Your task to perform on an android device: What's the weather today? Image 0: 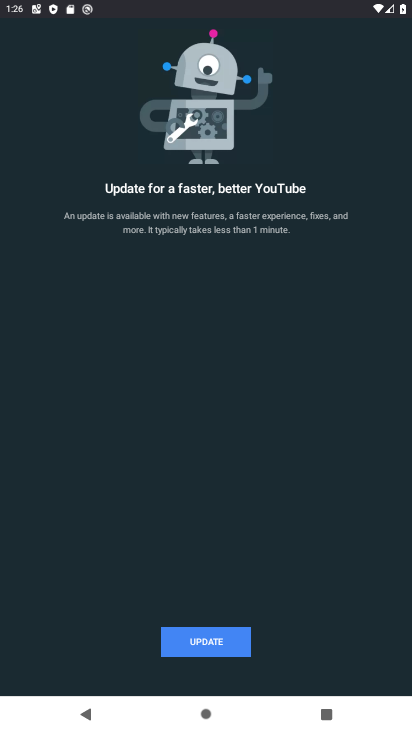
Step 0: press home button
Your task to perform on an android device: What's the weather today? Image 1: 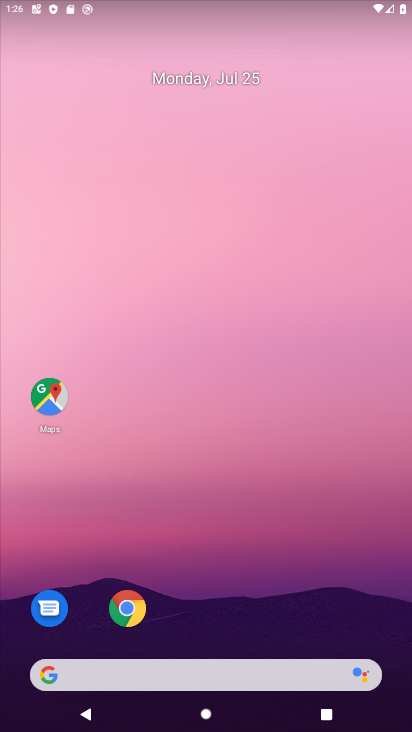
Step 1: click (179, 666)
Your task to perform on an android device: What's the weather today? Image 2: 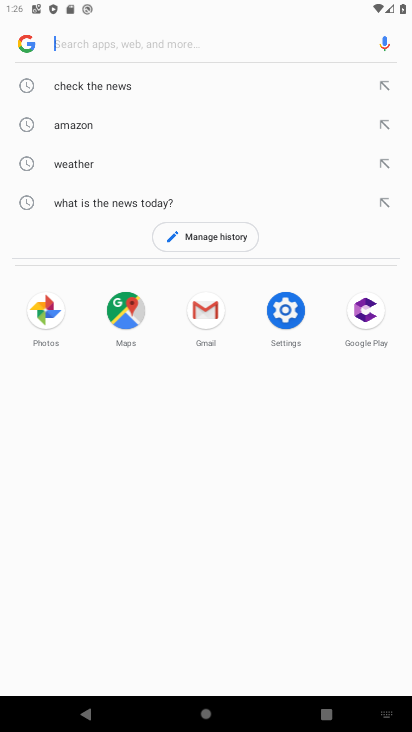
Step 2: type "What's the weather today?"
Your task to perform on an android device: What's the weather today? Image 3: 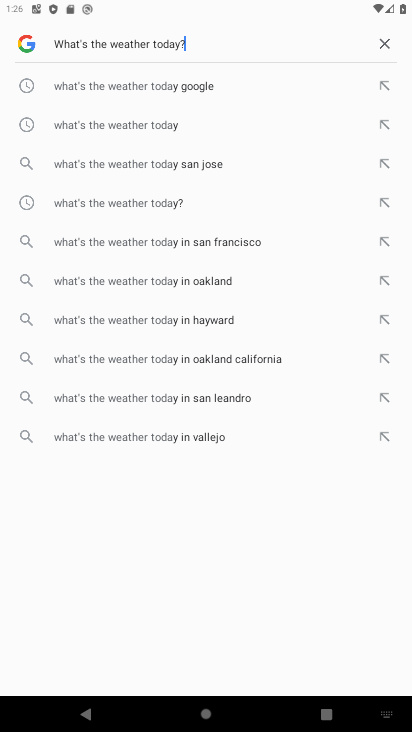
Step 3: press enter
Your task to perform on an android device: What's the weather today? Image 4: 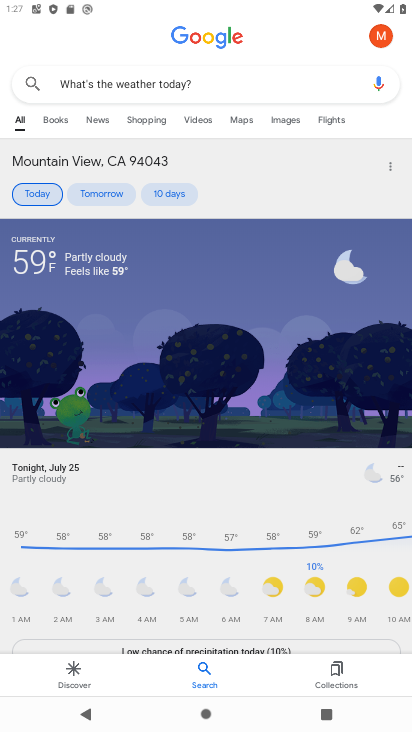
Step 4: task complete